Your task to perform on an android device: change timer sound Image 0: 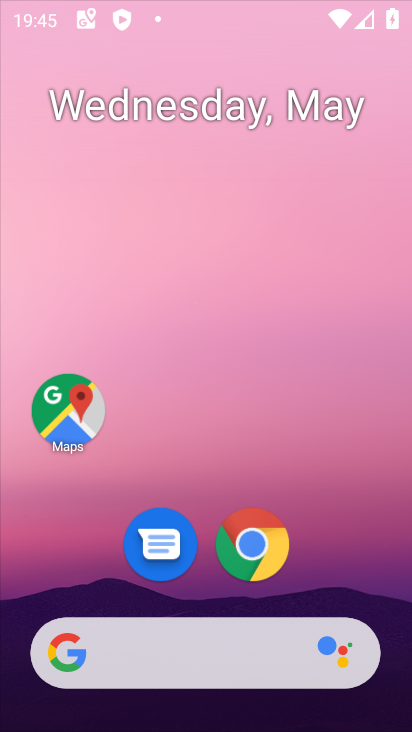
Step 0: click (241, 544)
Your task to perform on an android device: change timer sound Image 1: 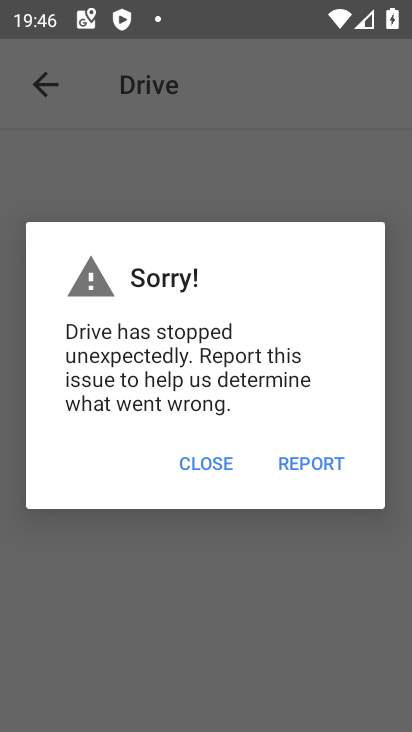
Step 1: press home button
Your task to perform on an android device: change timer sound Image 2: 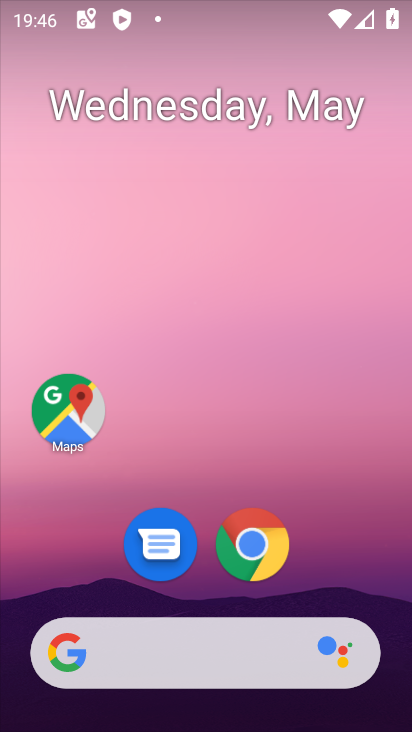
Step 2: drag from (211, 589) to (294, 91)
Your task to perform on an android device: change timer sound Image 3: 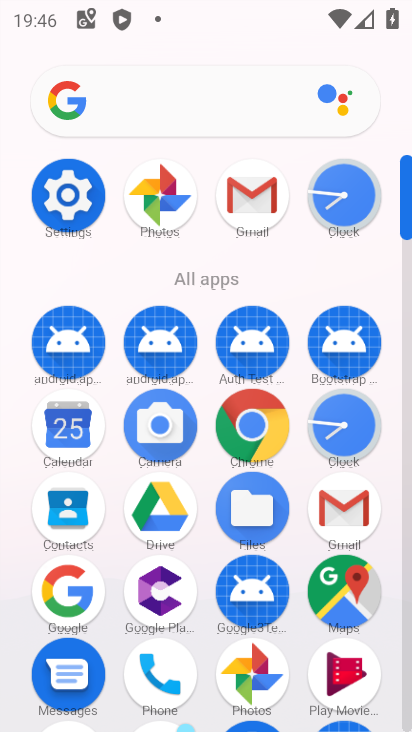
Step 3: click (337, 191)
Your task to perform on an android device: change timer sound Image 4: 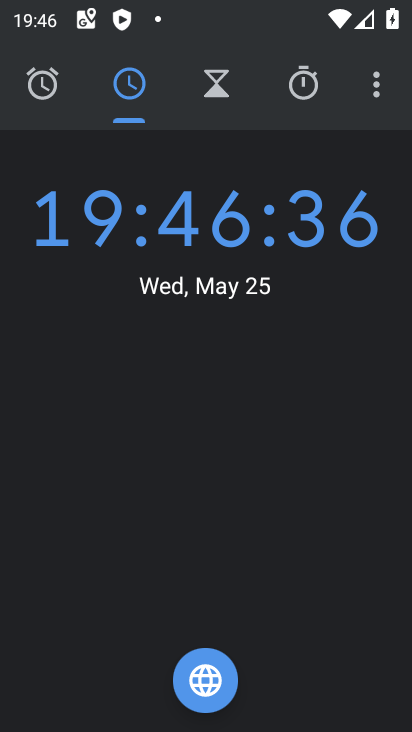
Step 4: click (392, 75)
Your task to perform on an android device: change timer sound Image 5: 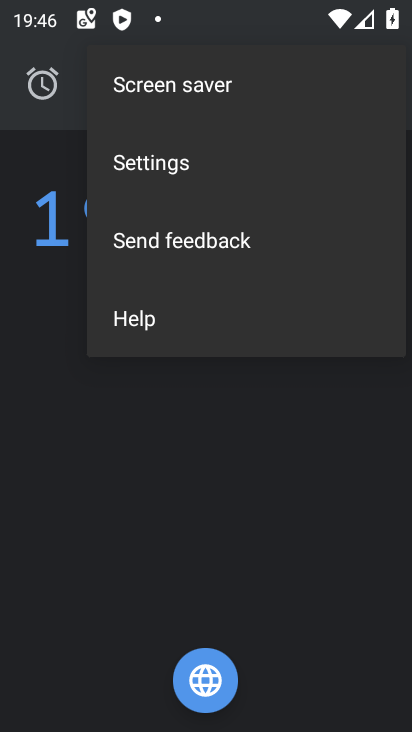
Step 5: click (217, 169)
Your task to perform on an android device: change timer sound Image 6: 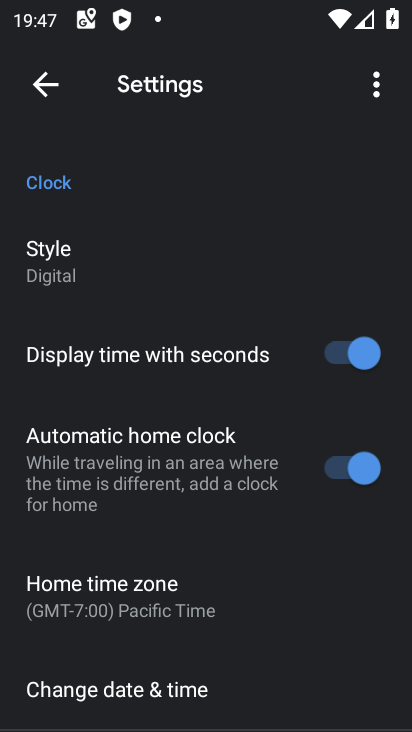
Step 6: drag from (146, 675) to (193, 191)
Your task to perform on an android device: change timer sound Image 7: 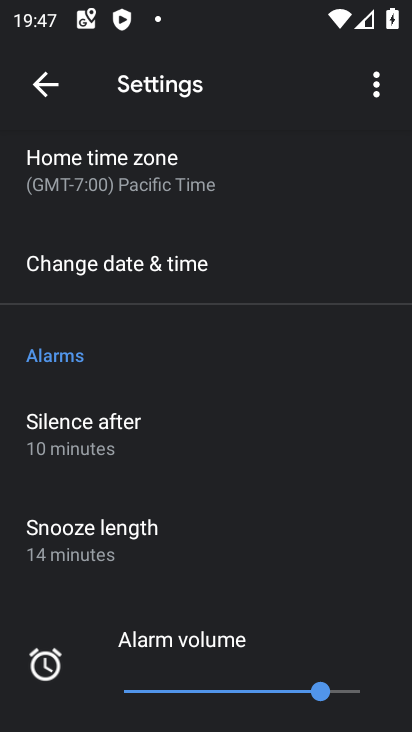
Step 7: drag from (175, 555) to (302, 163)
Your task to perform on an android device: change timer sound Image 8: 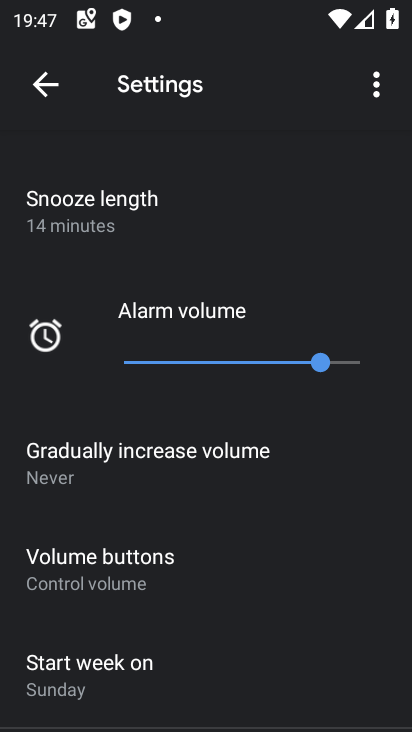
Step 8: drag from (131, 648) to (221, 287)
Your task to perform on an android device: change timer sound Image 9: 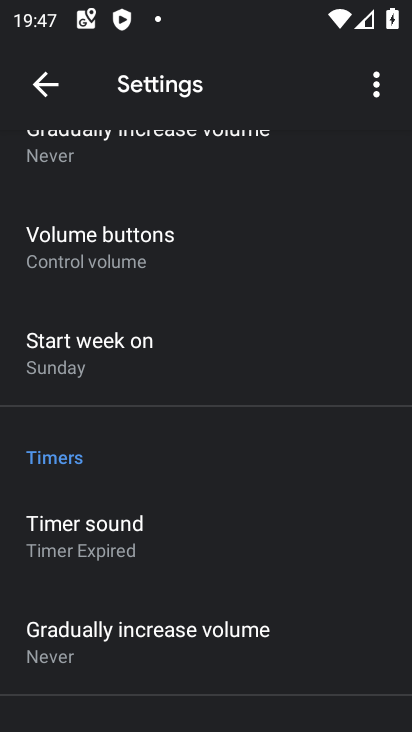
Step 9: click (129, 531)
Your task to perform on an android device: change timer sound Image 10: 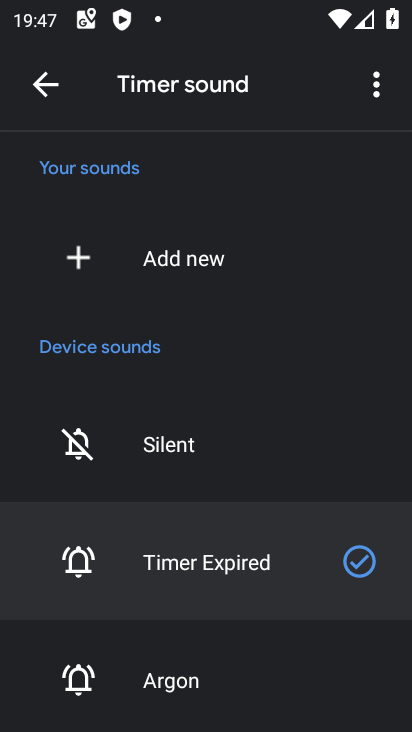
Step 10: click (175, 694)
Your task to perform on an android device: change timer sound Image 11: 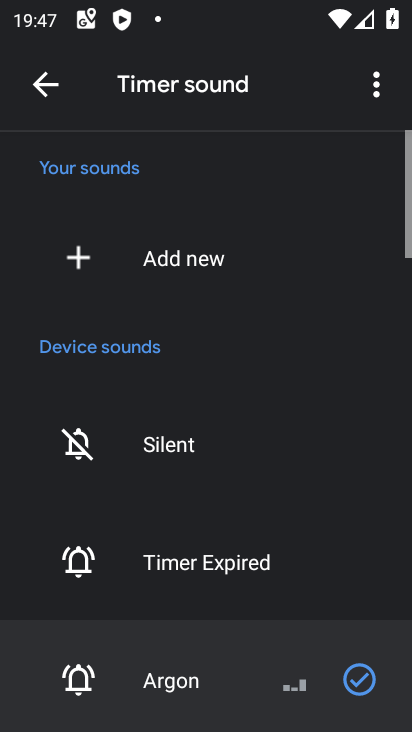
Step 11: task complete